Your task to perform on an android device: Open Chrome and go to settings Image 0: 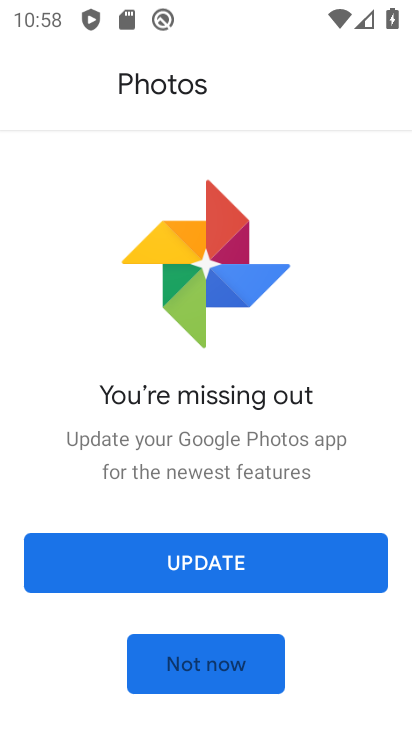
Step 0: press home button
Your task to perform on an android device: Open Chrome and go to settings Image 1: 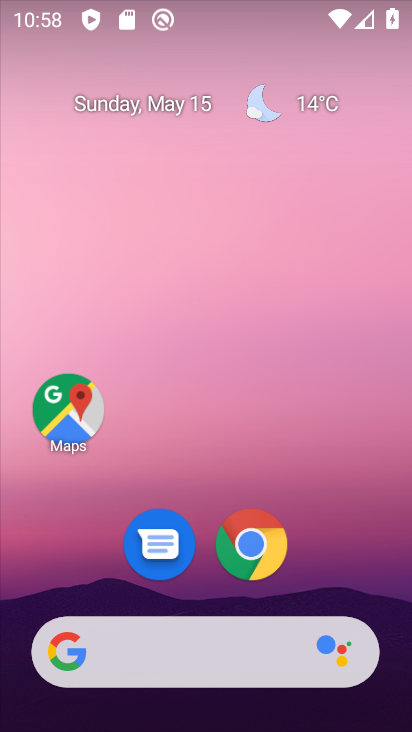
Step 1: click (285, 550)
Your task to perform on an android device: Open Chrome and go to settings Image 2: 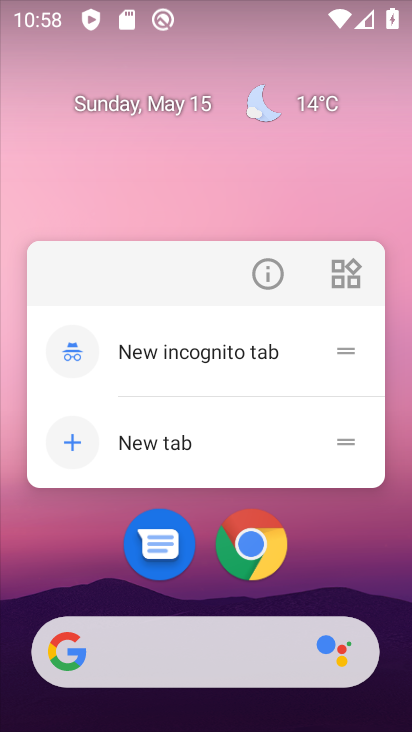
Step 2: click (270, 550)
Your task to perform on an android device: Open Chrome and go to settings Image 3: 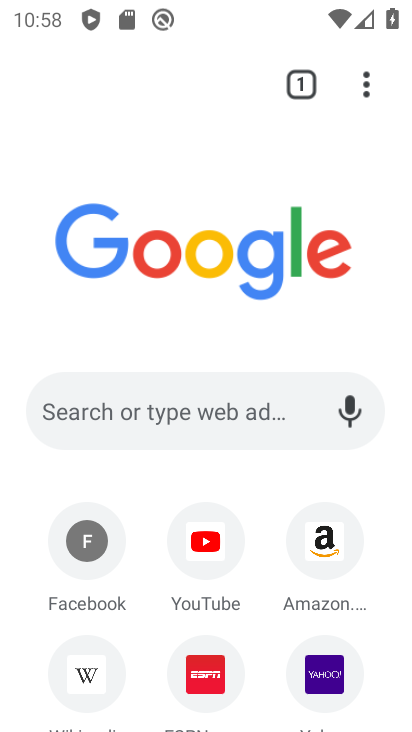
Step 3: task complete